Your task to perform on an android device: Search for Italian restaurants on Maps Image 0: 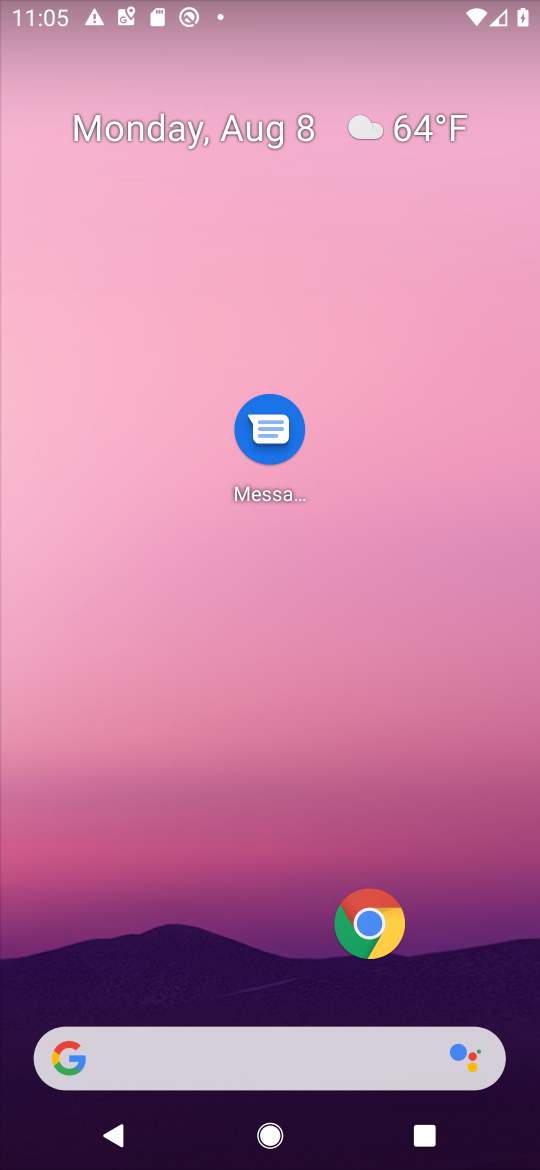
Step 0: drag from (47, 1129) to (399, 371)
Your task to perform on an android device: Search for Italian restaurants on Maps Image 1: 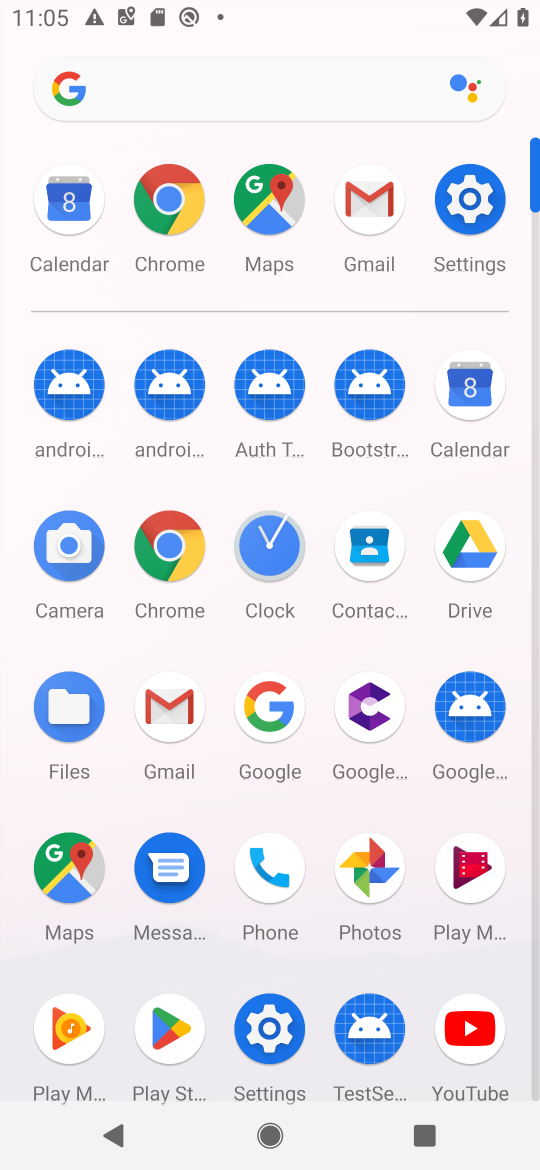
Step 1: click (263, 198)
Your task to perform on an android device: Search for Italian restaurants on Maps Image 2: 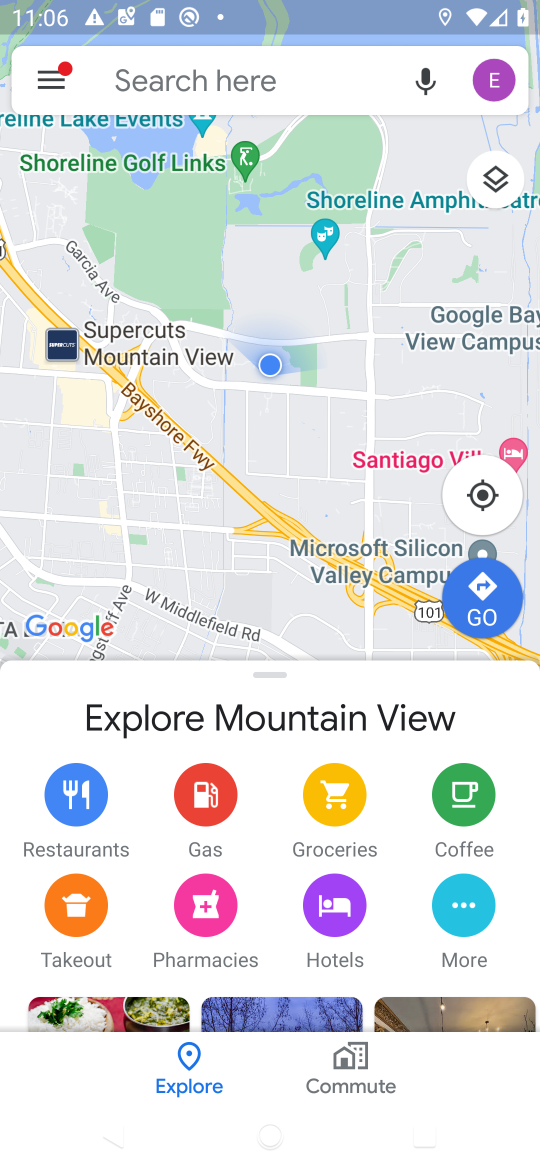
Step 2: click (120, 100)
Your task to perform on an android device: Search for Italian restaurants on Maps Image 3: 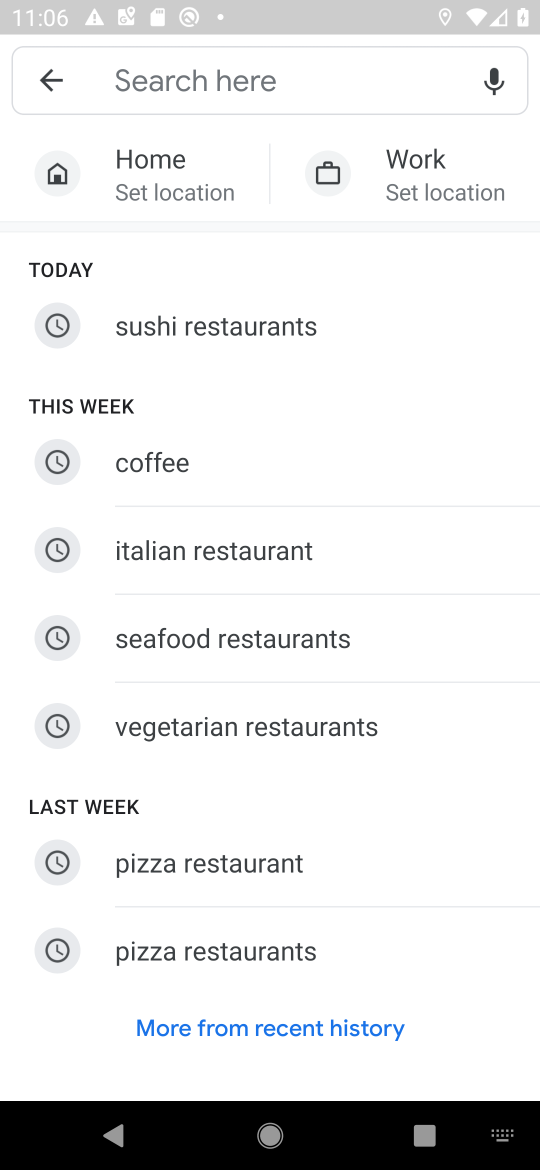
Step 3: click (144, 547)
Your task to perform on an android device: Search for Italian restaurants on Maps Image 4: 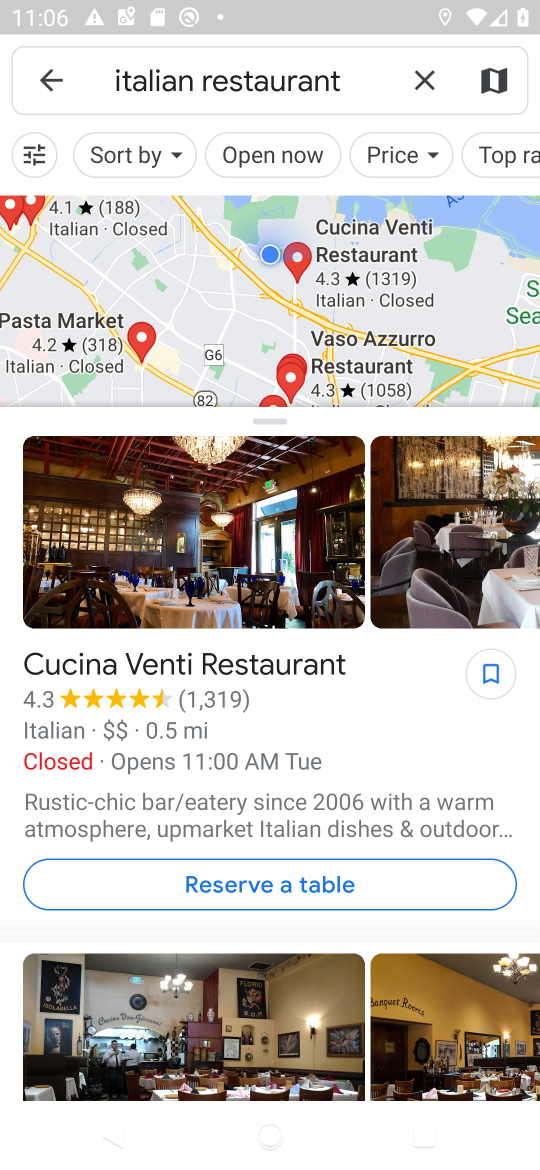
Step 4: task complete